Your task to perform on an android device: Open my contact list Image 0: 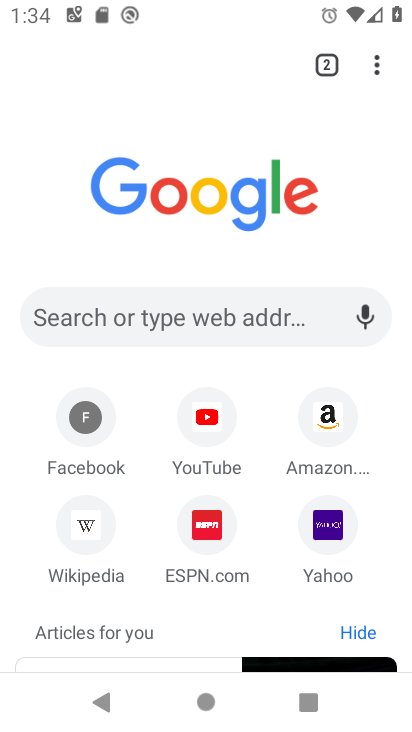
Step 0: press home button
Your task to perform on an android device: Open my contact list Image 1: 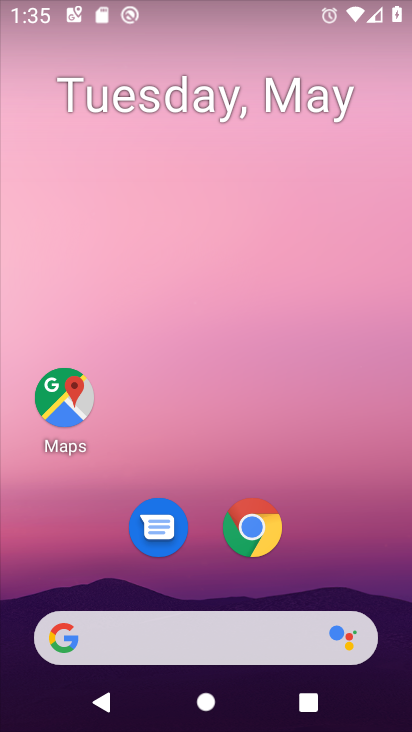
Step 1: drag from (258, 700) to (212, 11)
Your task to perform on an android device: Open my contact list Image 2: 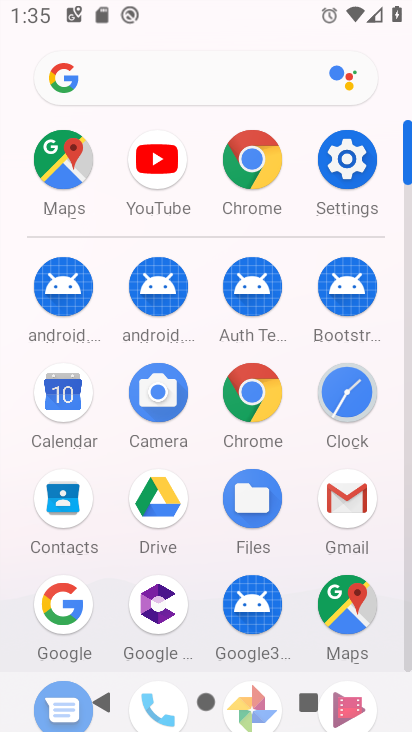
Step 2: drag from (220, 586) to (279, 191)
Your task to perform on an android device: Open my contact list Image 3: 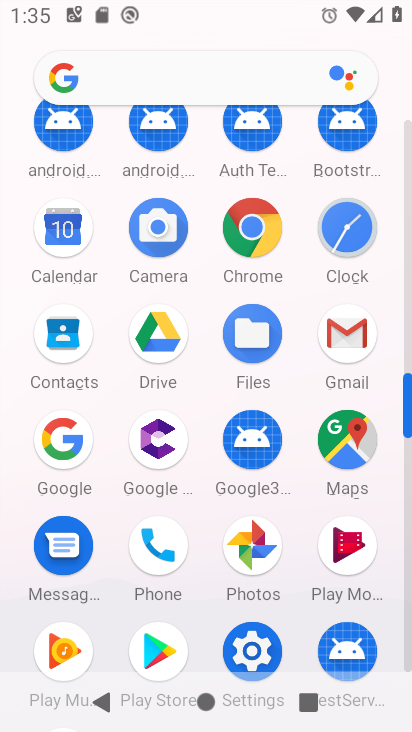
Step 3: click (52, 351)
Your task to perform on an android device: Open my contact list Image 4: 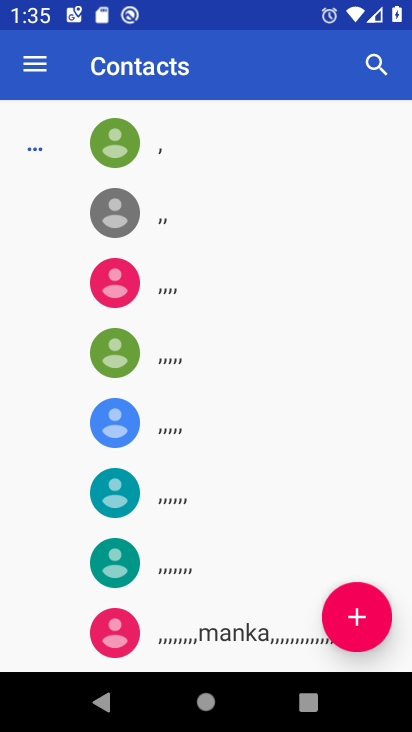
Step 4: task complete